Your task to perform on an android device: make emails show in primary in the gmail app Image 0: 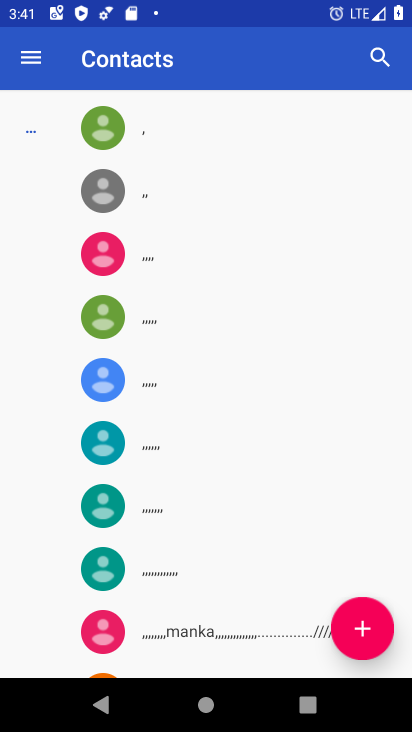
Step 0: press home button
Your task to perform on an android device: make emails show in primary in the gmail app Image 1: 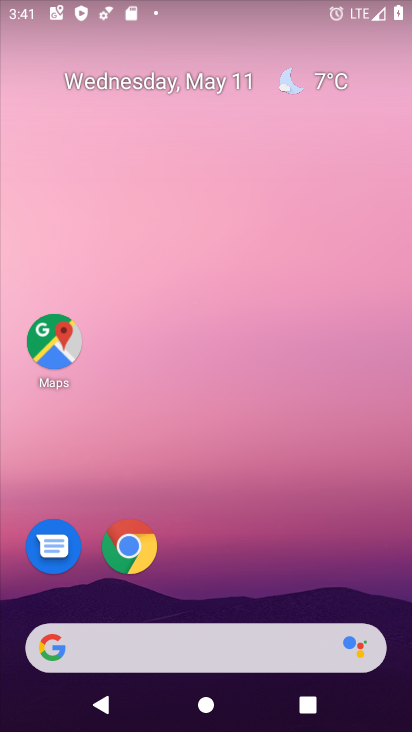
Step 1: drag from (249, 631) to (257, 7)
Your task to perform on an android device: make emails show in primary in the gmail app Image 2: 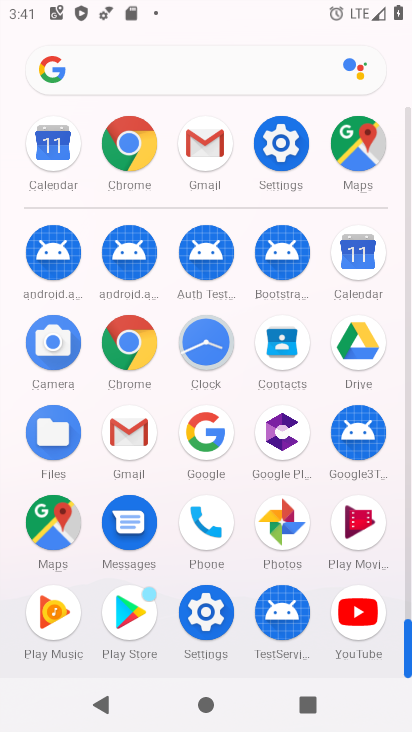
Step 2: click (116, 428)
Your task to perform on an android device: make emails show in primary in the gmail app Image 3: 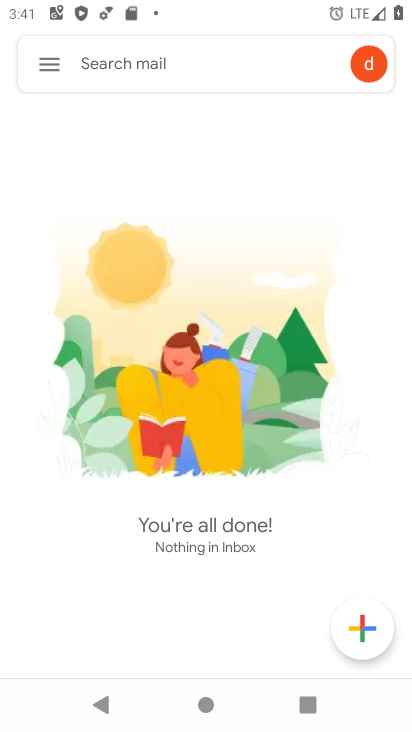
Step 3: click (60, 69)
Your task to perform on an android device: make emails show in primary in the gmail app Image 4: 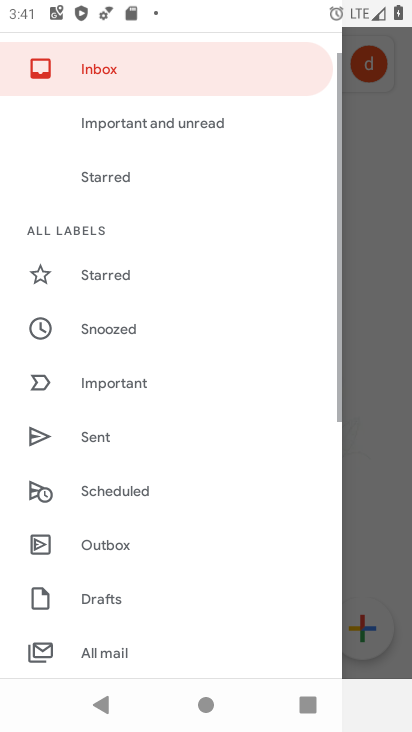
Step 4: drag from (169, 537) to (189, 268)
Your task to perform on an android device: make emails show in primary in the gmail app Image 5: 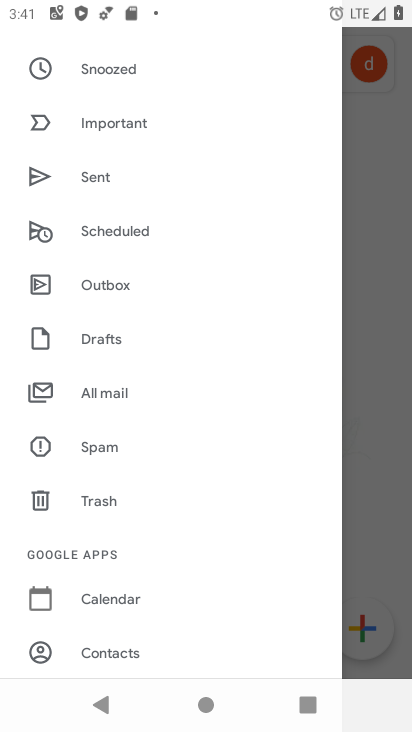
Step 5: drag from (116, 209) to (94, 658)
Your task to perform on an android device: make emails show in primary in the gmail app Image 6: 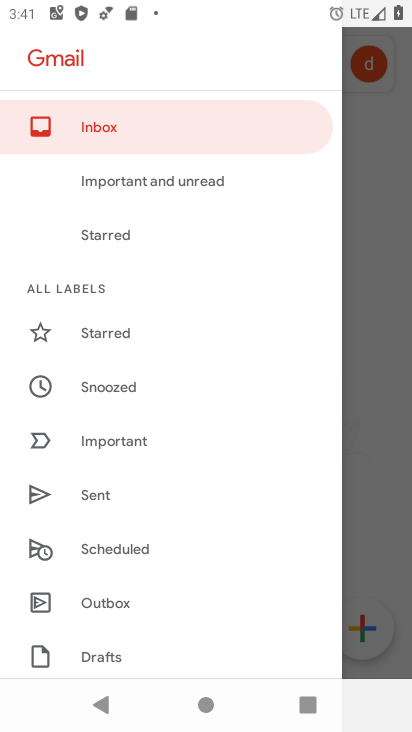
Step 6: drag from (151, 659) to (146, 78)
Your task to perform on an android device: make emails show in primary in the gmail app Image 7: 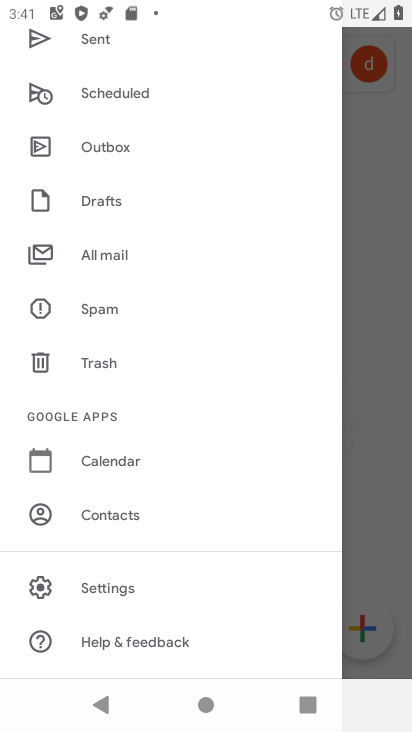
Step 7: drag from (211, 184) to (139, 645)
Your task to perform on an android device: make emails show in primary in the gmail app Image 8: 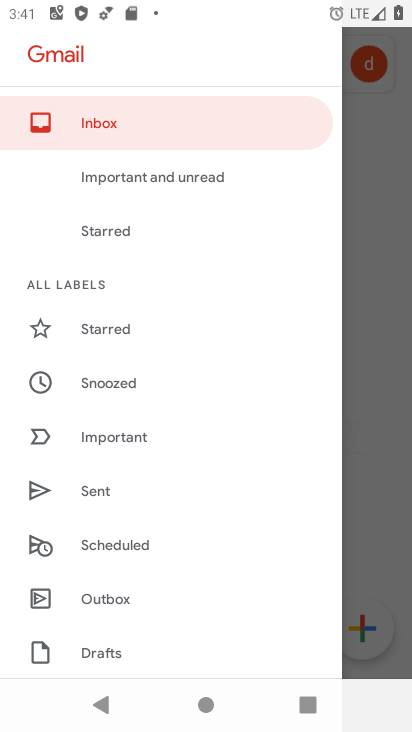
Step 8: drag from (171, 629) to (227, 44)
Your task to perform on an android device: make emails show in primary in the gmail app Image 9: 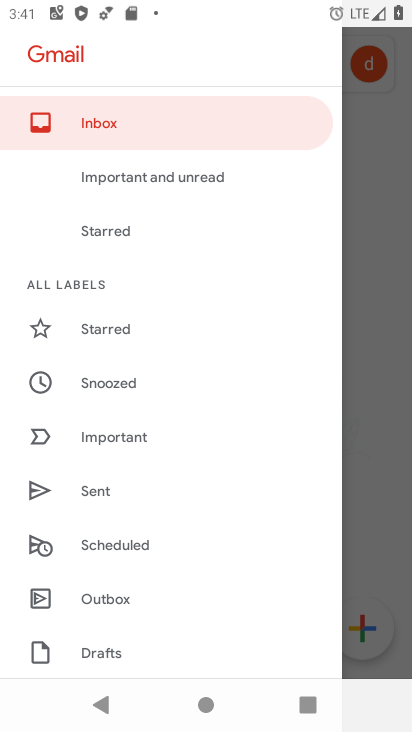
Step 9: drag from (117, 633) to (133, 167)
Your task to perform on an android device: make emails show in primary in the gmail app Image 10: 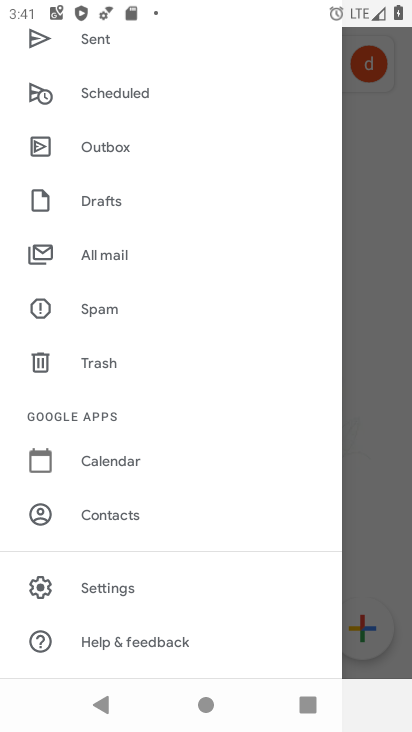
Step 10: click (123, 589)
Your task to perform on an android device: make emails show in primary in the gmail app Image 11: 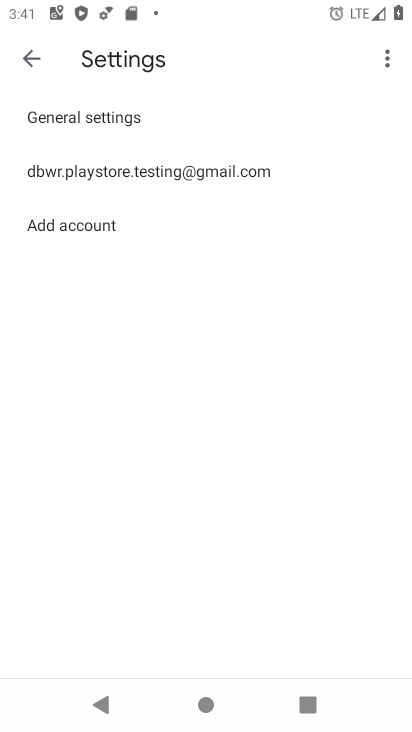
Step 11: click (129, 175)
Your task to perform on an android device: make emails show in primary in the gmail app Image 12: 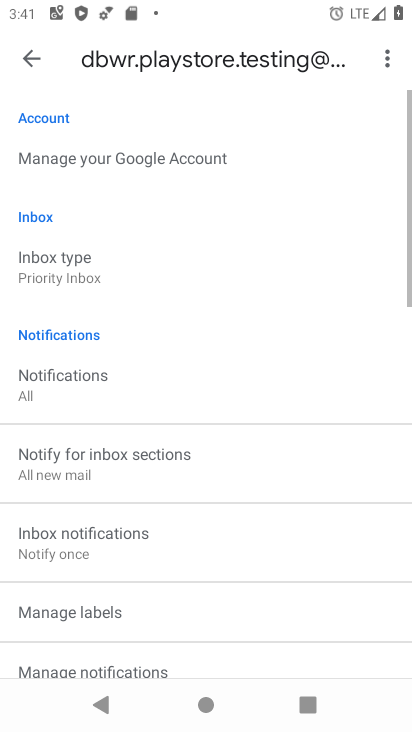
Step 12: click (106, 267)
Your task to perform on an android device: make emails show in primary in the gmail app Image 13: 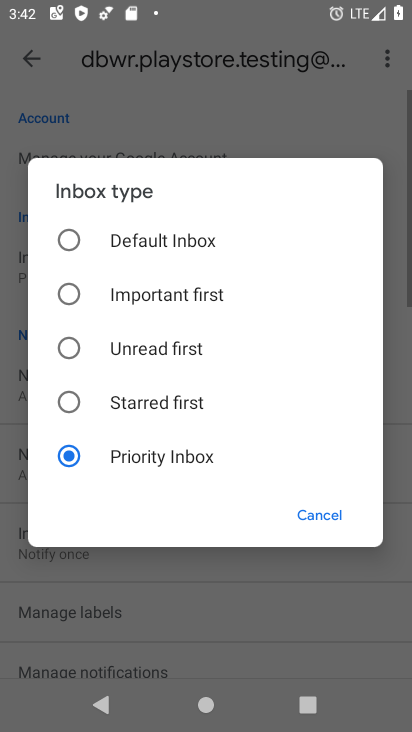
Step 13: click (109, 237)
Your task to perform on an android device: make emails show in primary in the gmail app Image 14: 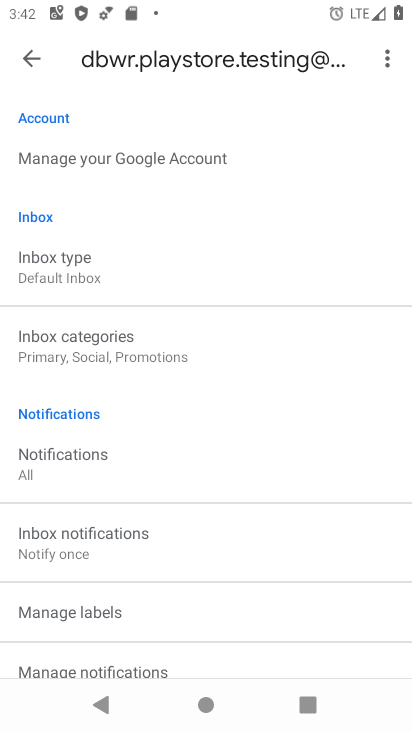
Step 14: task complete